Your task to perform on an android device: clear all cookies in the chrome app Image 0: 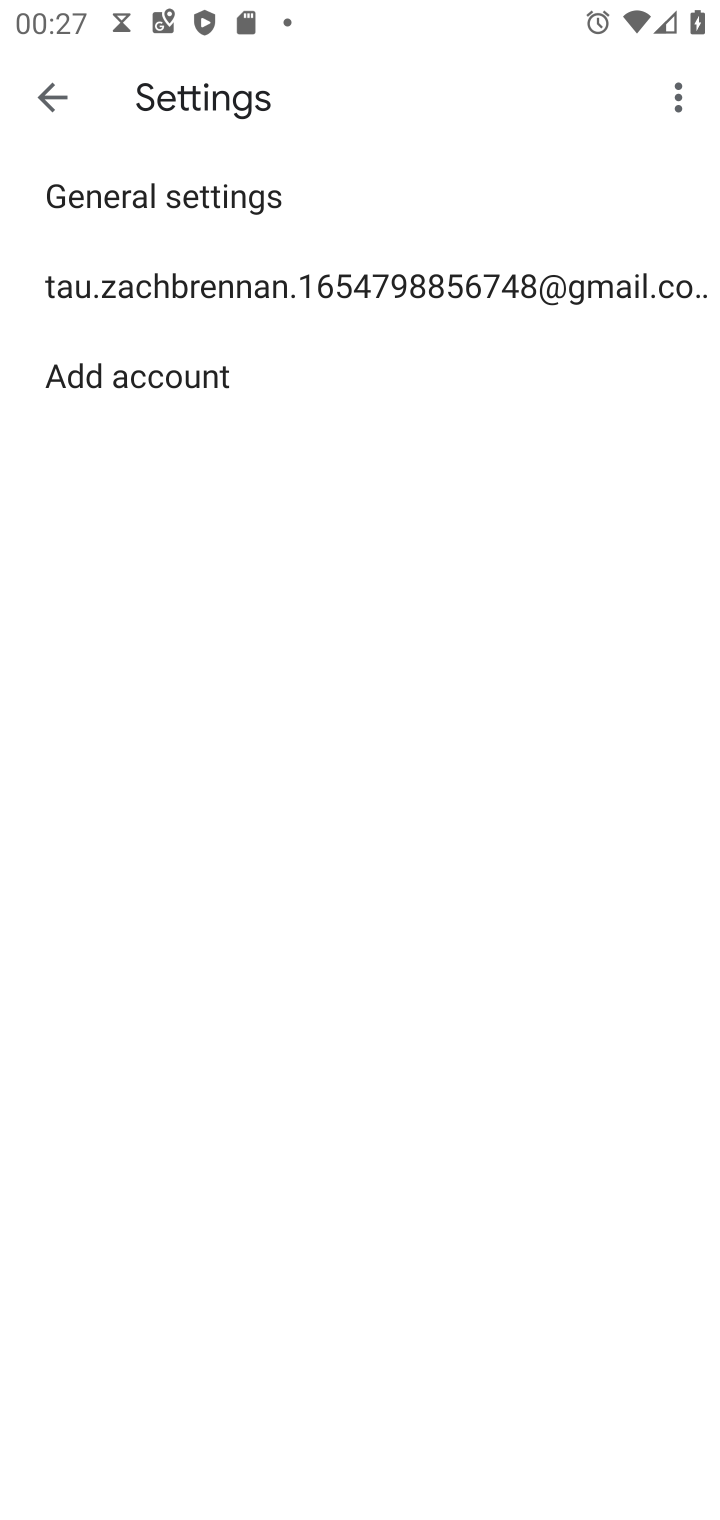
Step 0: press home button
Your task to perform on an android device: clear all cookies in the chrome app Image 1: 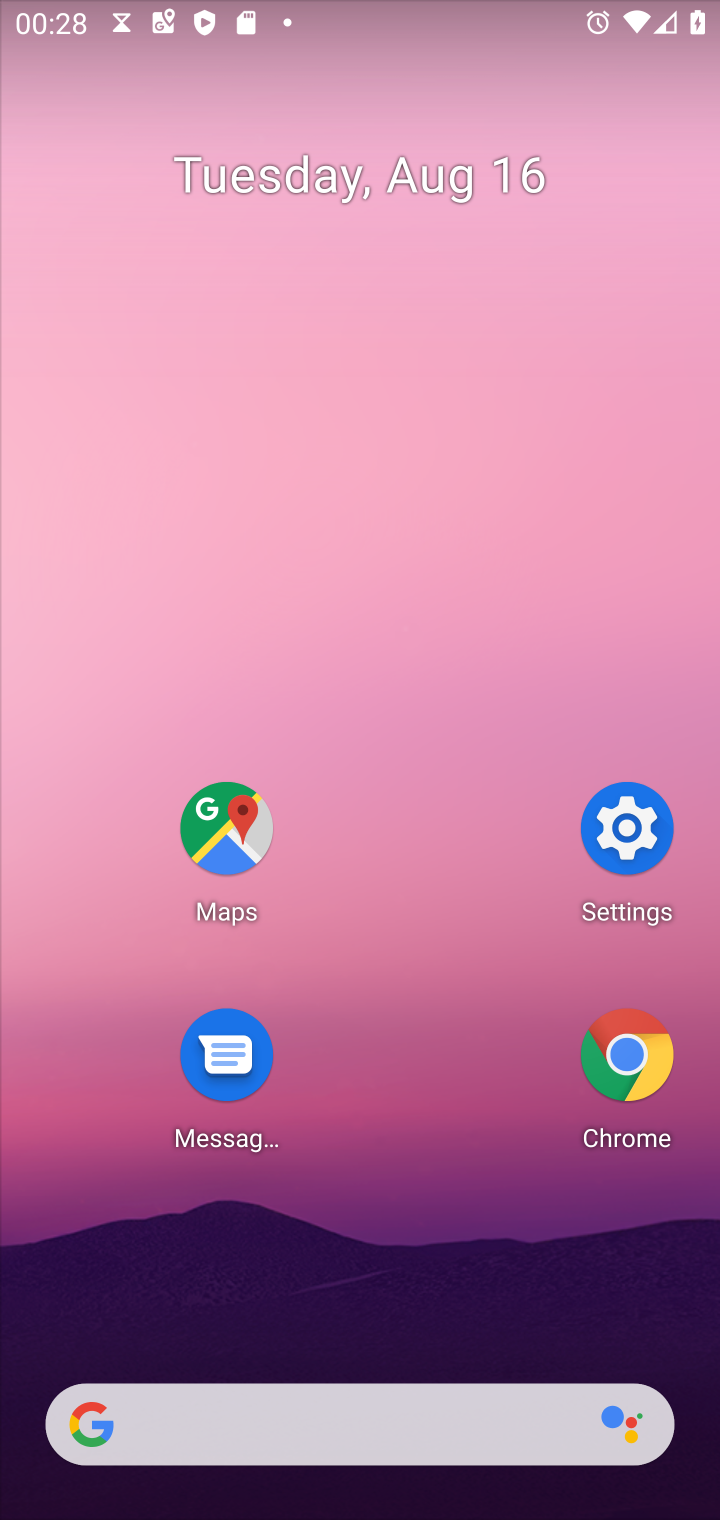
Step 1: click (635, 1065)
Your task to perform on an android device: clear all cookies in the chrome app Image 2: 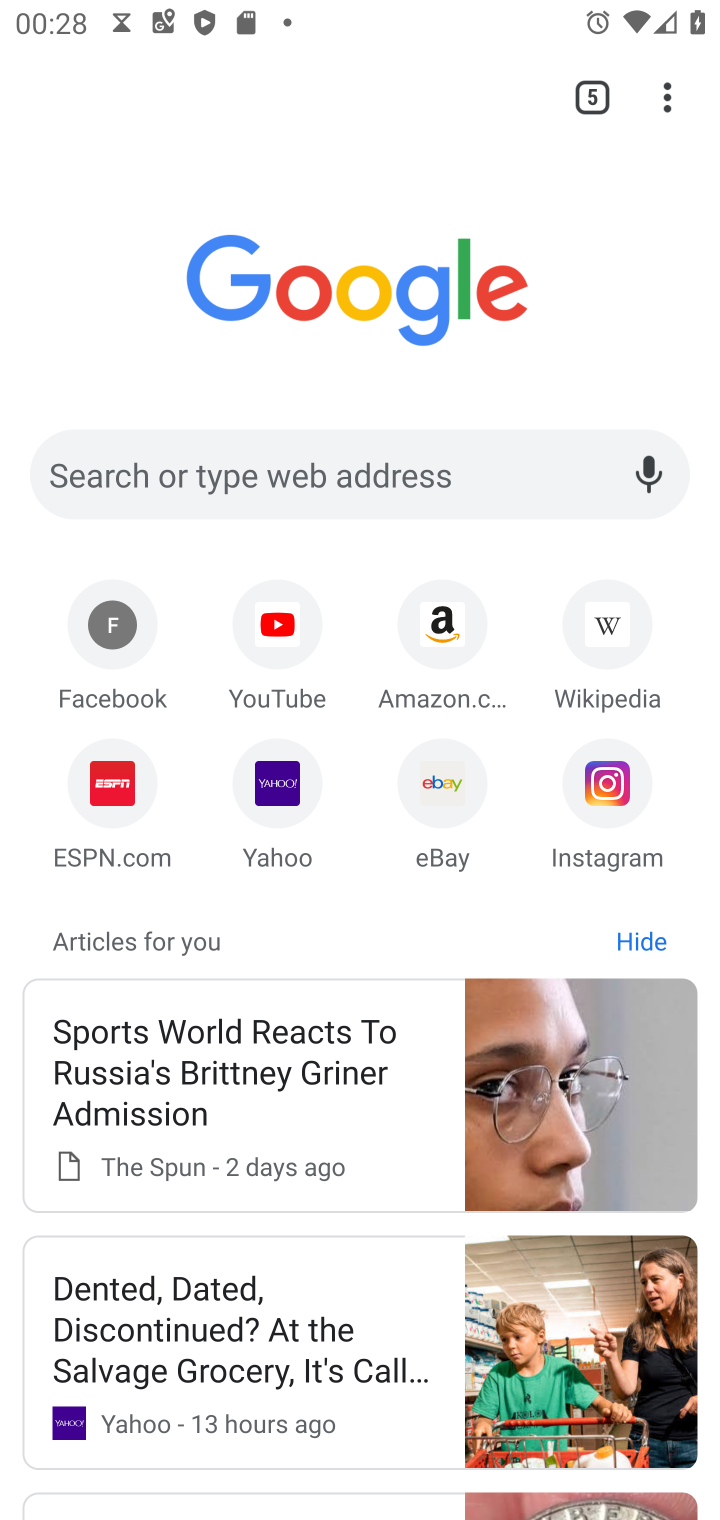
Step 2: drag from (665, 93) to (332, 819)
Your task to perform on an android device: clear all cookies in the chrome app Image 3: 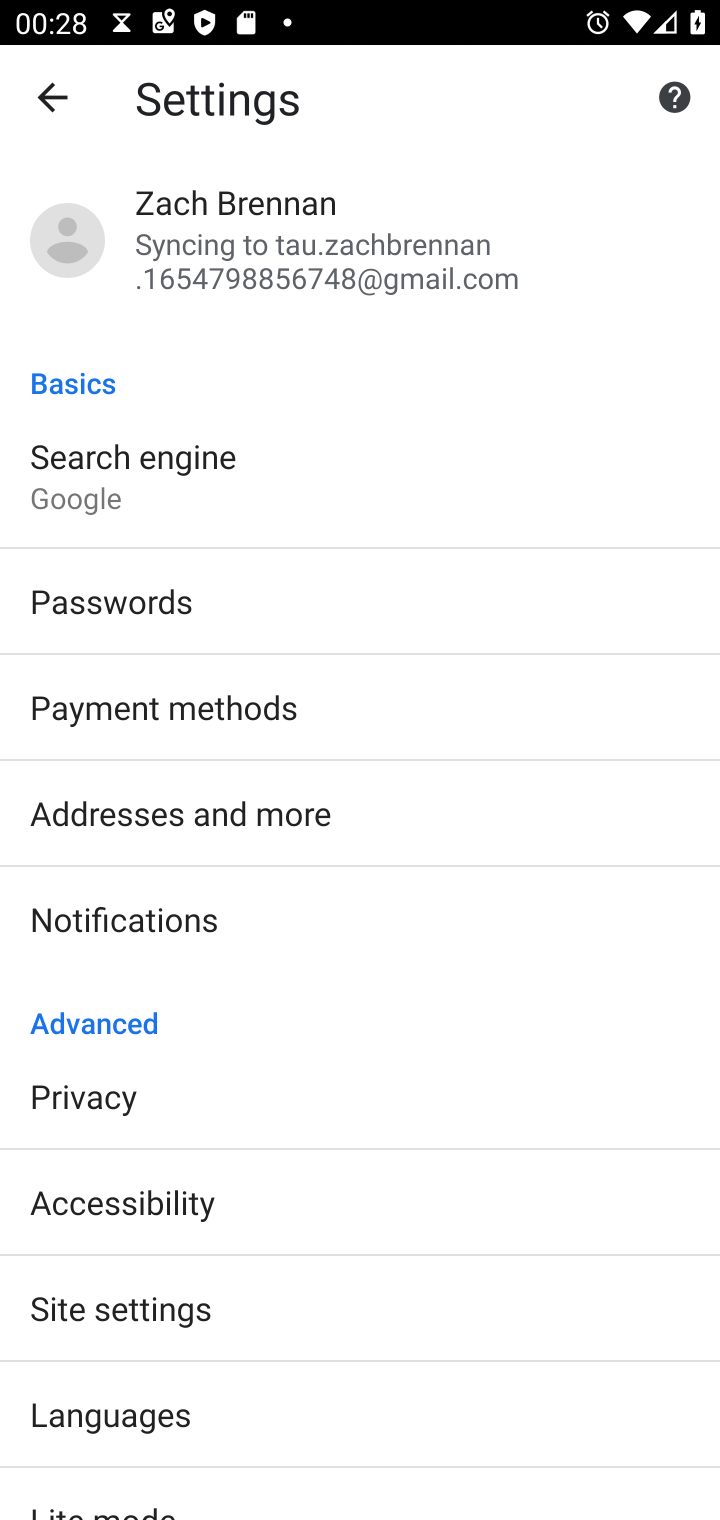
Step 3: click (112, 1086)
Your task to perform on an android device: clear all cookies in the chrome app Image 4: 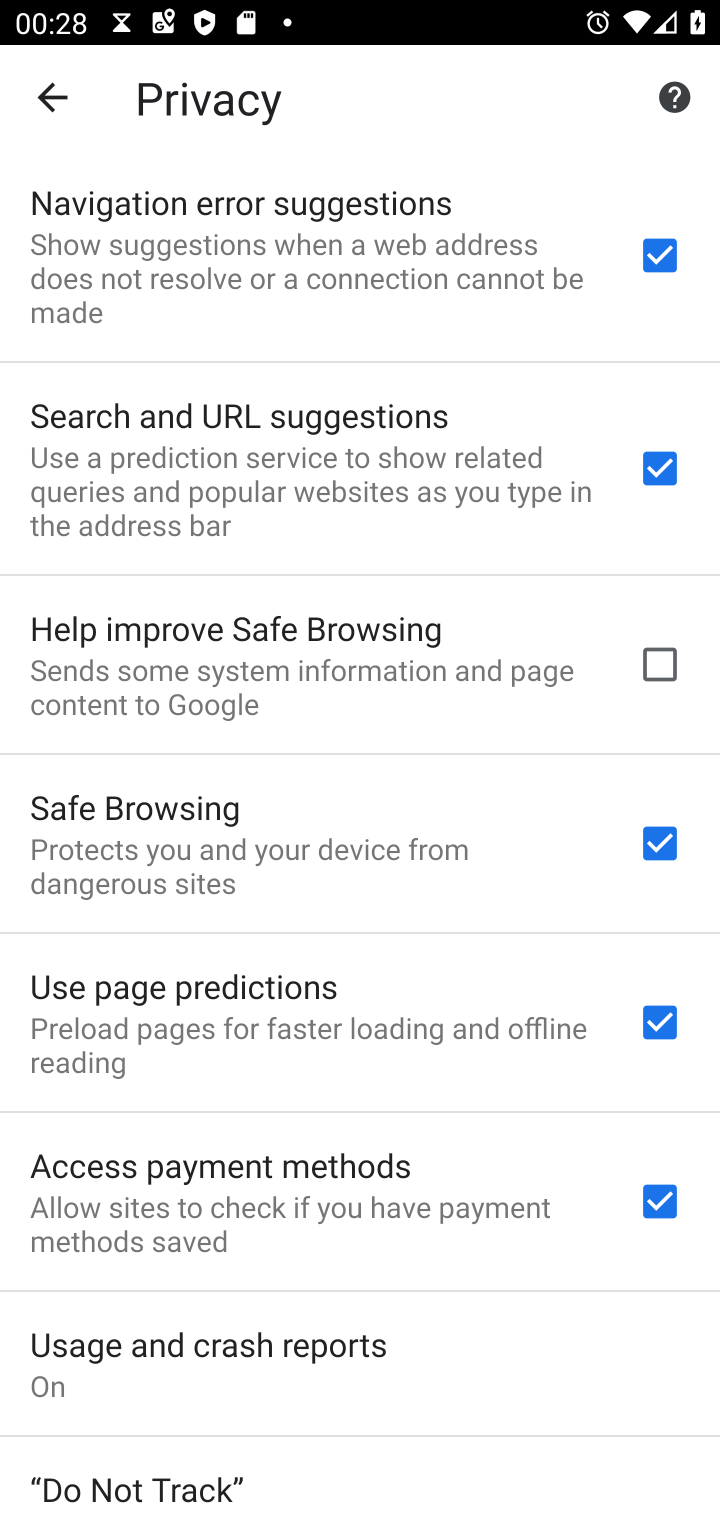
Step 4: drag from (447, 1096) to (677, 67)
Your task to perform on an android device: clear all cookies in the chrome app Image 5: 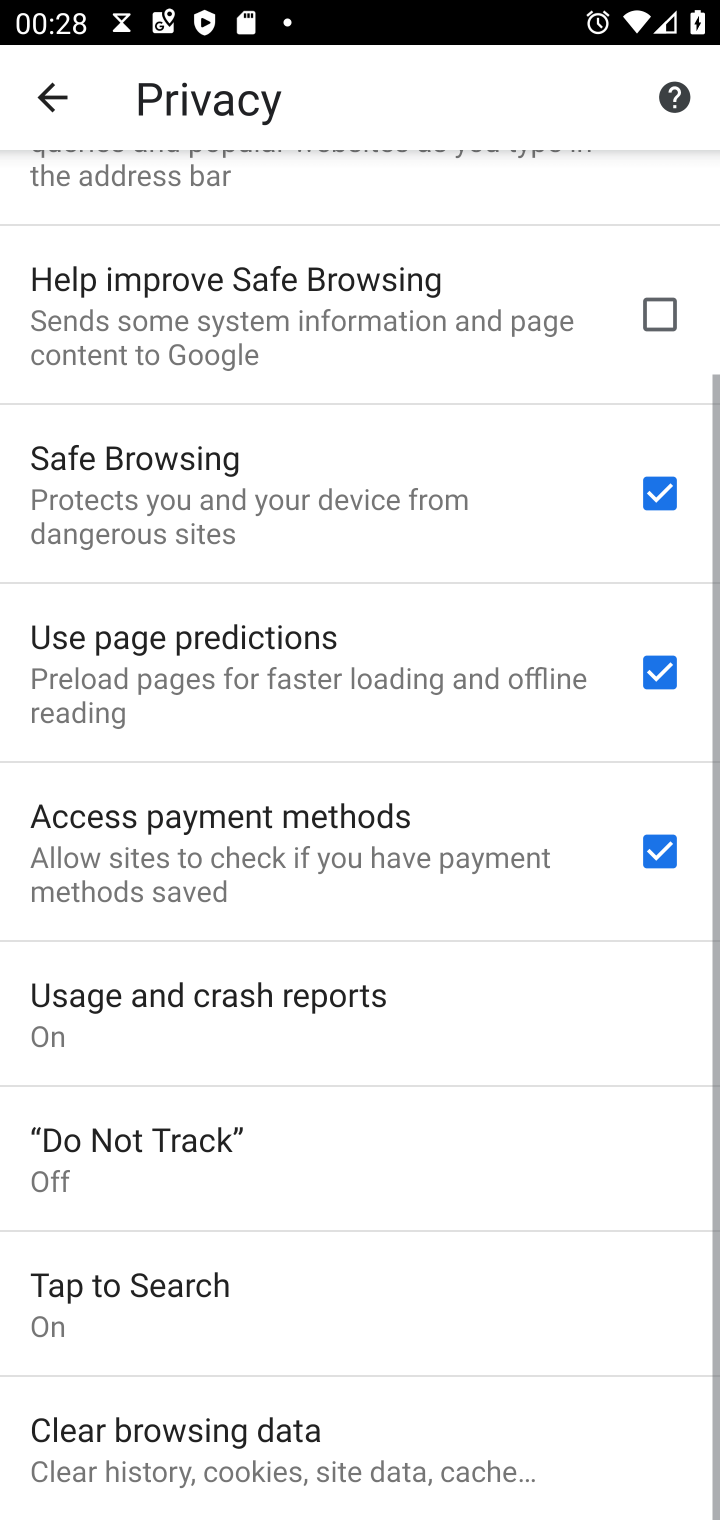
Step 5: click (283, 1443)
Your task to perform on an android device: clear all cookies in the chrome app Image 6: 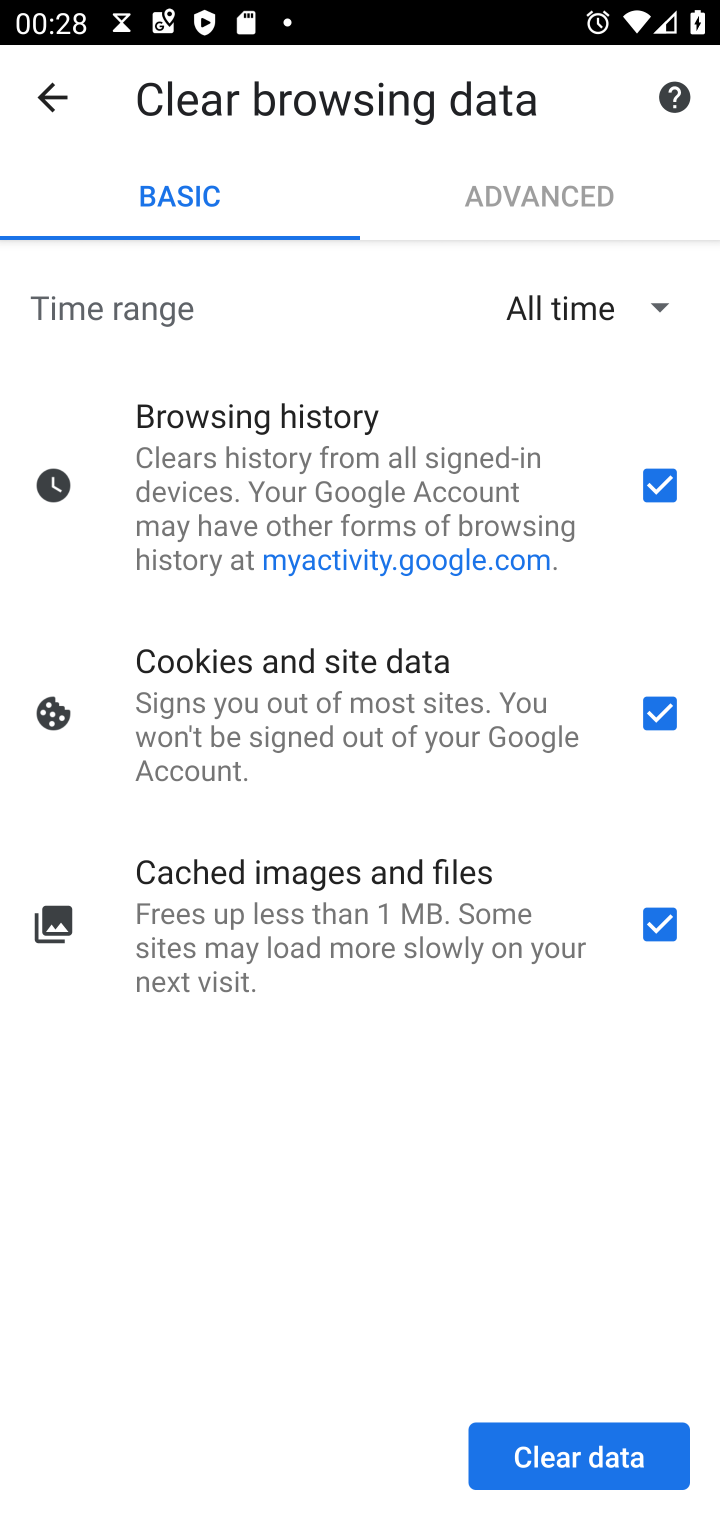
Step 6: click (668, 461)
Your task to perform on an android device: clear all cookies in the chrome app Image 7: 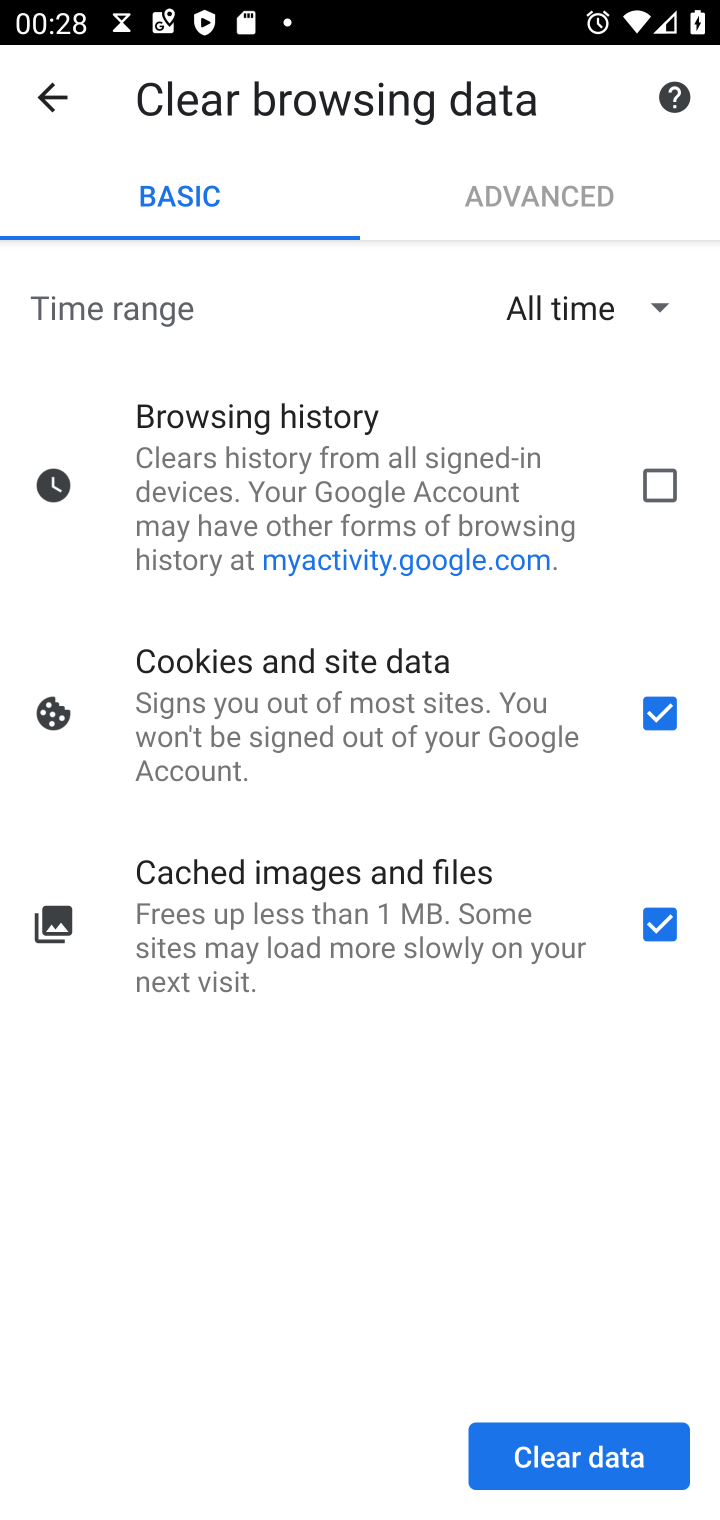
Step 7: click (653, 920)
Your task to perform on an android device: clear all cookies in the chrome app Image 8: 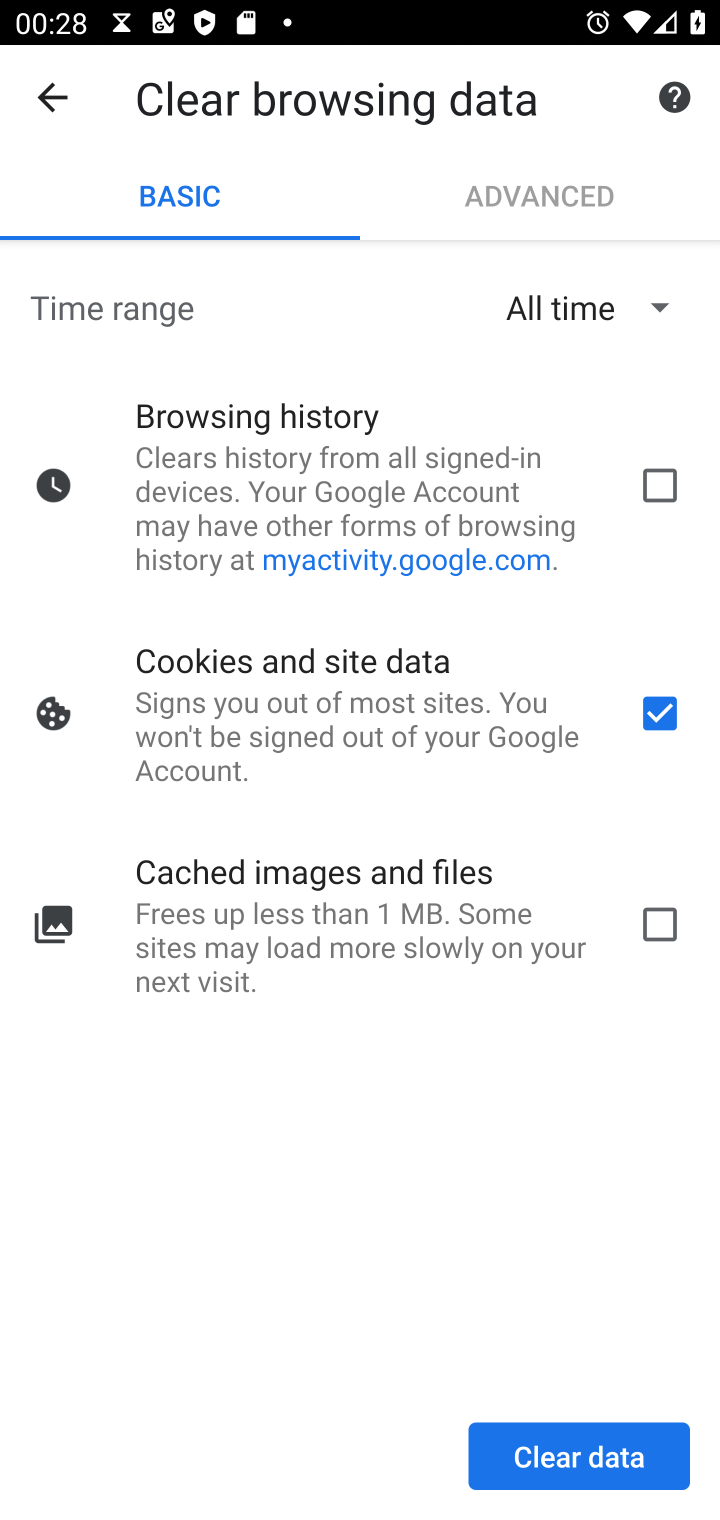
Step 8: click (559, 1441)
Your task to perform on an android device: clear all cookies in the chrome app Image 9: 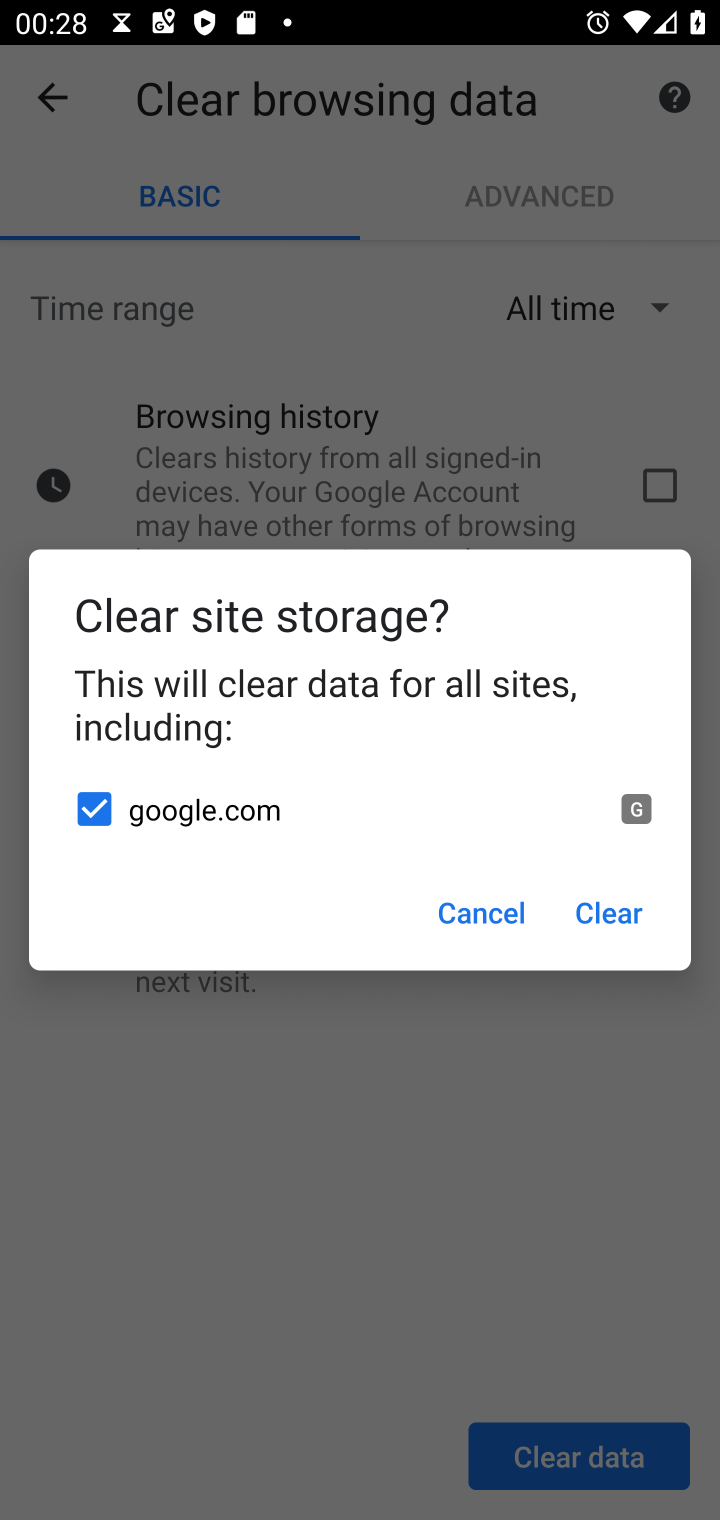
Step 9: click (613, 909)
Your task to perform on an android device: clear all cookies in the chrome app Image 10: 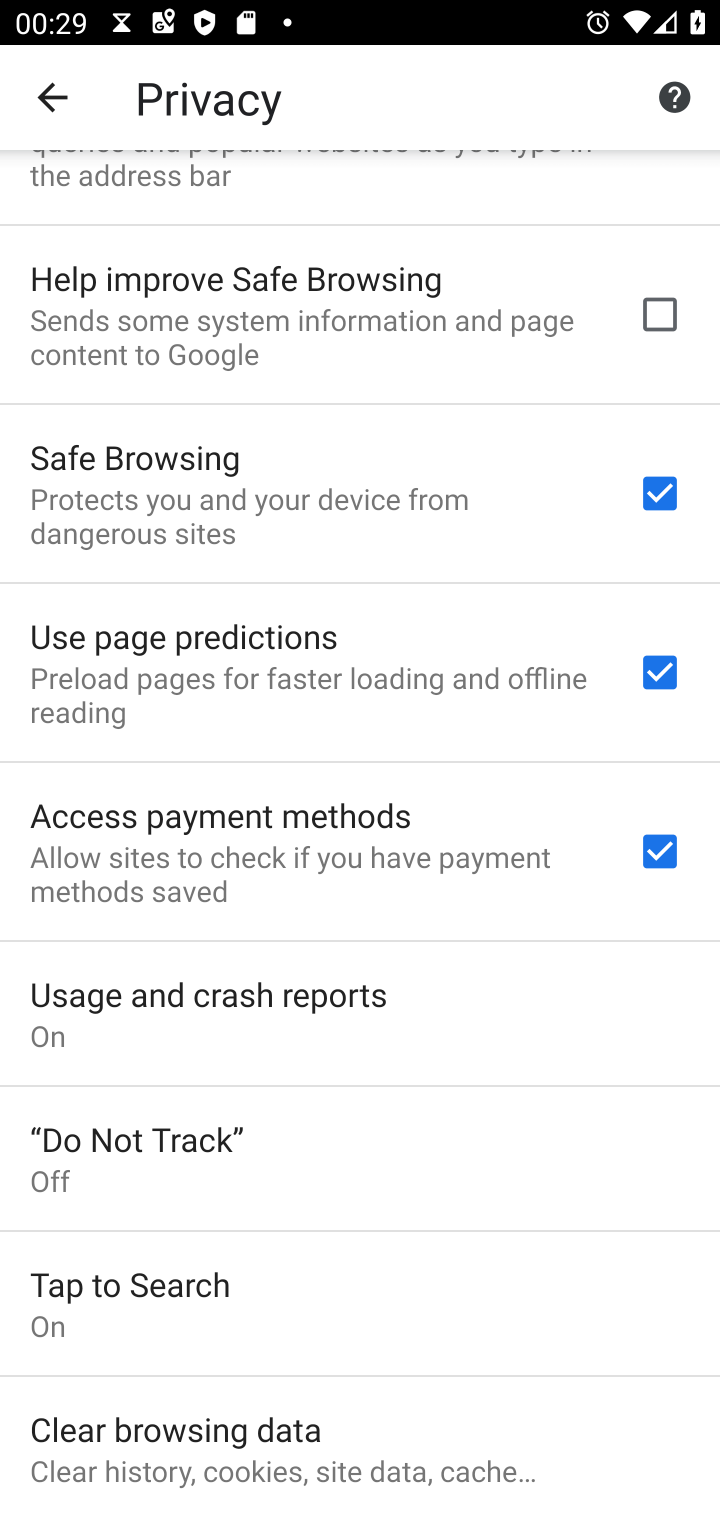
Step 10: task complete